Your task to perform on an android device: Go to eBay Image 0: 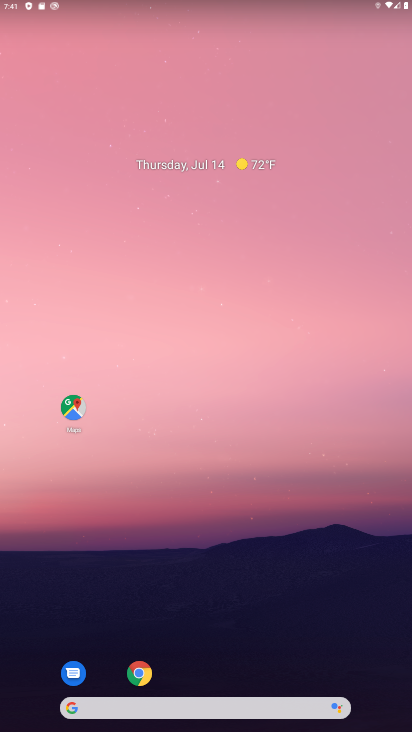
Step 0: click (139, 664)
Your task to perform on an android device: Go to eBay Image 1: 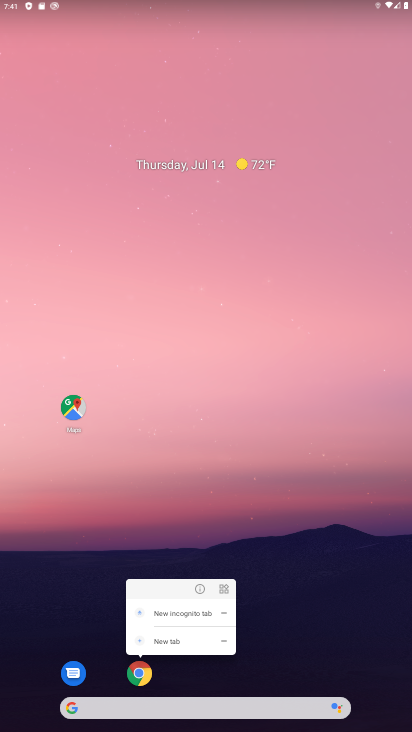
Step 1: click (143, 679)
Your task to perform on an android device: Go to eBay Image 2: 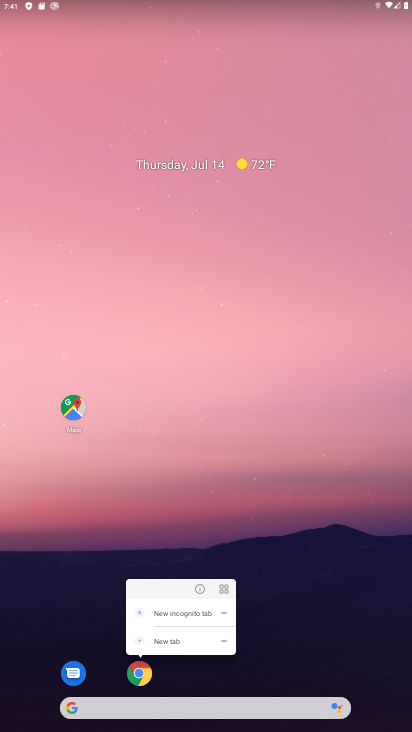
Step 2: click (142, 678)
Your task to perform on an android device: Go to eBay Image 3: 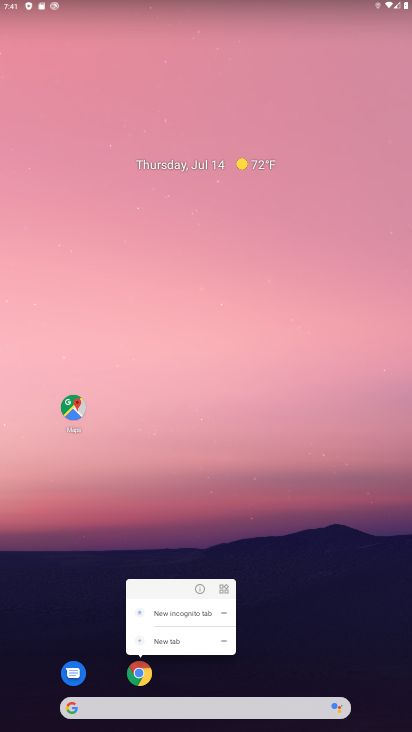
Step 3: click (135, 669)
Your task to perform on an android device: Go to eBay Image 4: 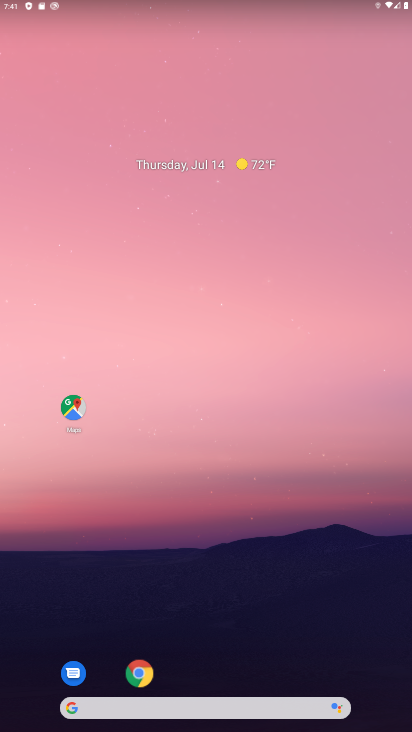
Step 4: click (140, 680)
Your task to perform on an android device: Go to eBay Image 5: 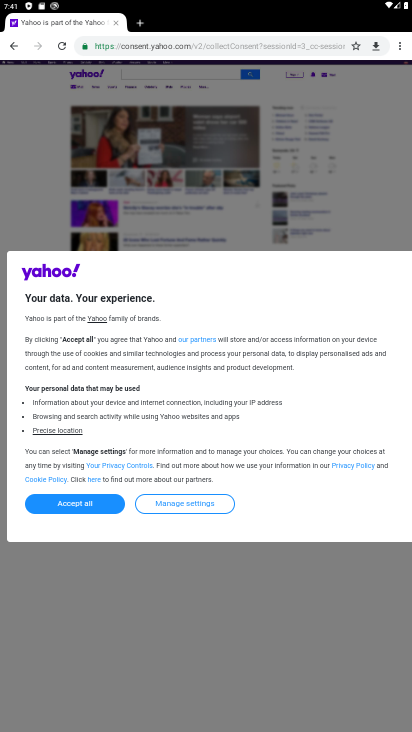
Step 5: click (118, 19)
Your task to perform on an android device: Go to eBay Image 6: 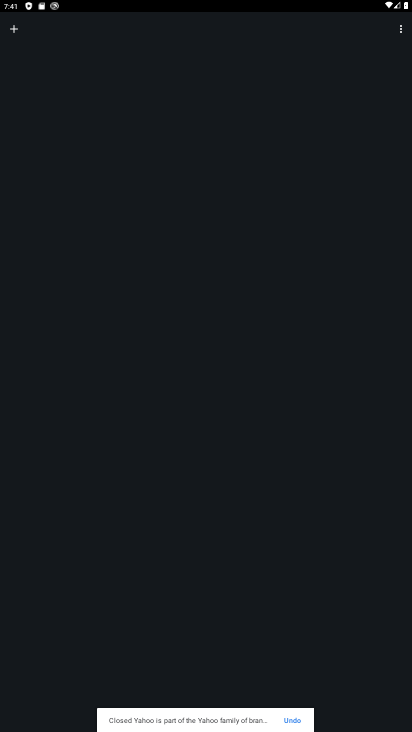
Step 6: click (9, 34)
Your task to perform on an android device: Go to eBay Image 7: 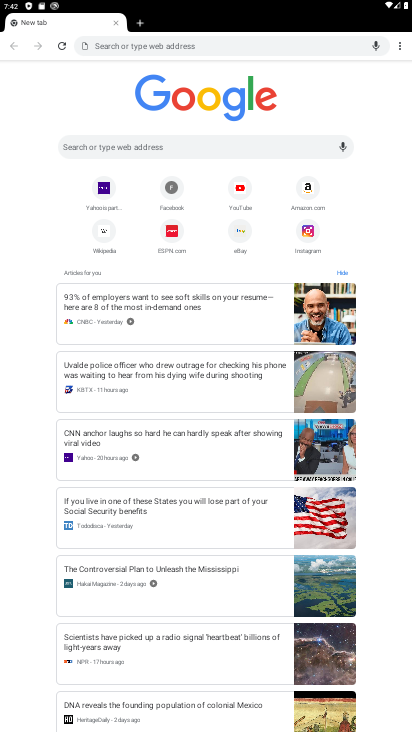
Step 7: click (244, 236)
Your task to perform on an android device: Go to eBay Image 8: 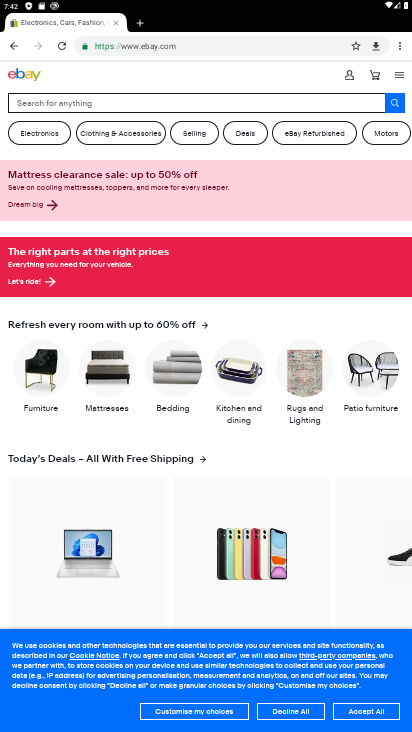
Step 8: task complete